Your task to perform on an android device: Is it going to rain today? Image 0: 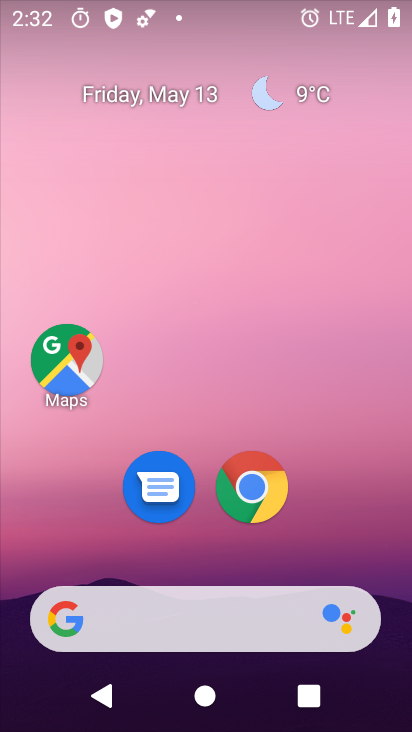
Step 0: drag from (210, 536) to (215, 66)
Your task to perform on an android device: Is it going to rain today? Image 1: 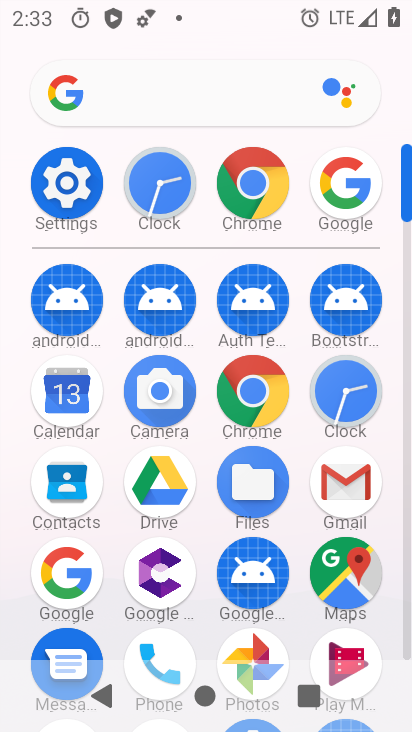
Step 1: click (345, 183)
Your task to perform on an android device: Is it going to rain today? Image 2: 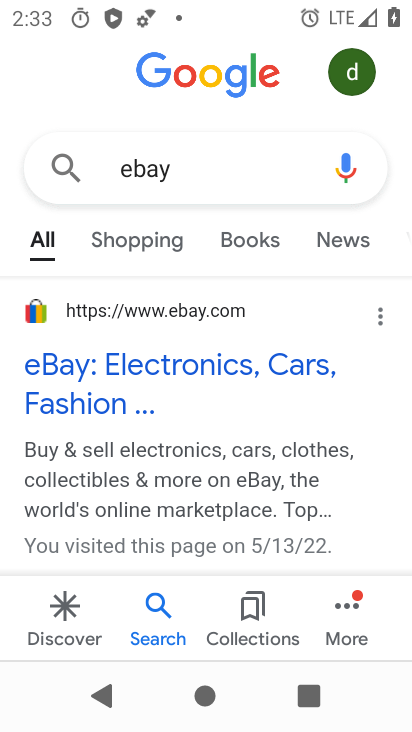
Step 2: click (221, 155)
Your task to perform on an android device: Is it going to rain today? Image 3: 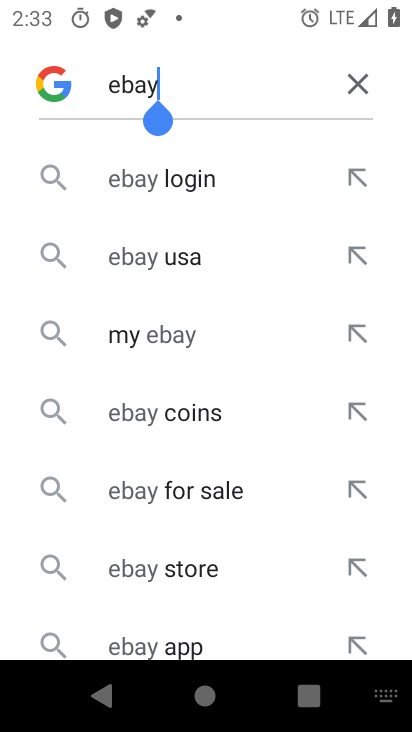
Step 3: click (359, 86)
Your task to perform on an android device: Is it going to rain today? Image 4: 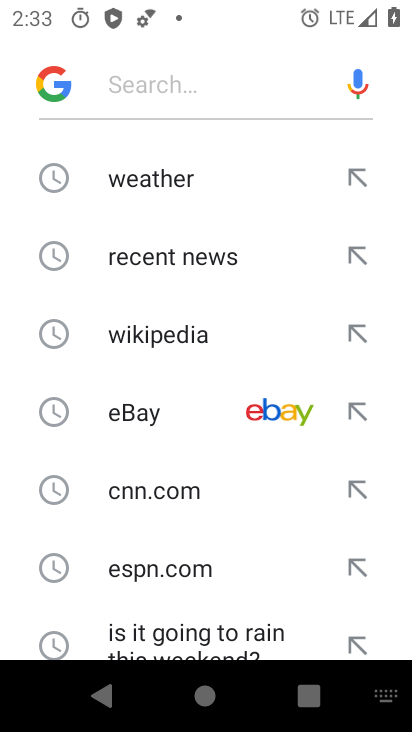
Step 4: type "is it going to rain today"
Your task to perform on an android device: Is it going to rain today? Image 5: 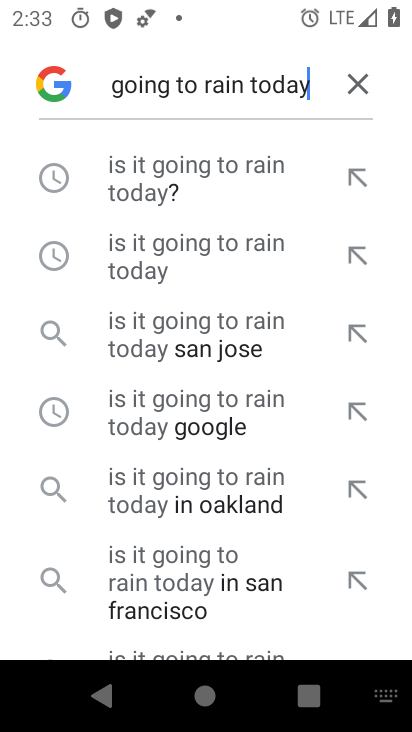
Step 5: click (188, 185)
Your task to perform on an android device: Is it going to rain today? Image 6: 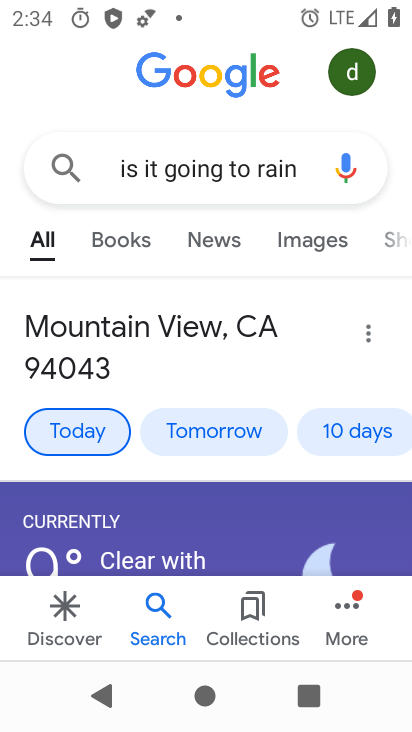
Step 6: task complete